Your task to perform on an android device: turn on location history Image 0: 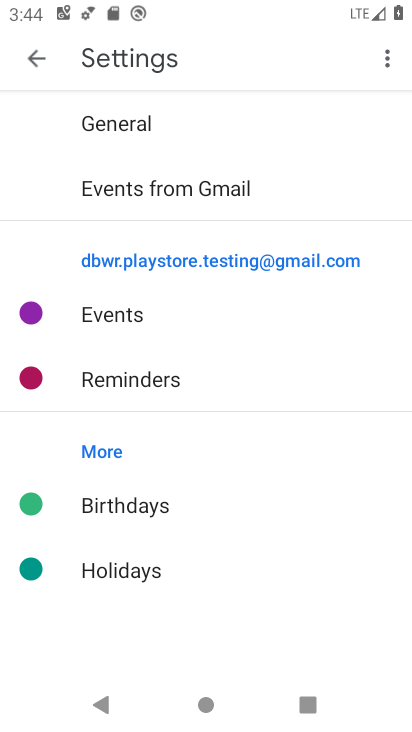
Step 0: press home button
Your task to perform on an android device: turn on location history Image 1: 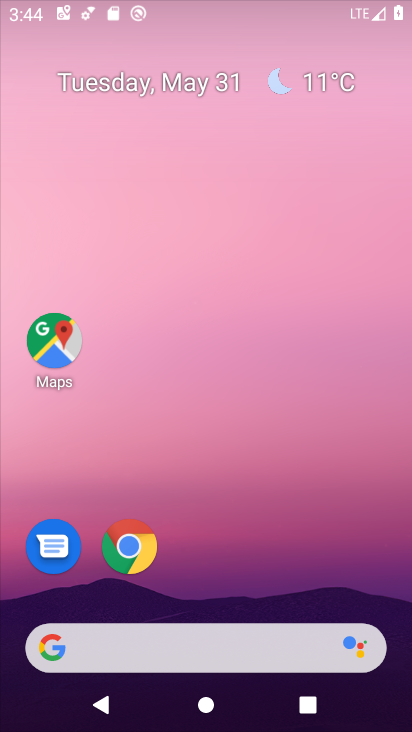
Step 1: drag from (250, 313) to (43, 35)
Your task to perform on an android device: turn on location history Image 2: 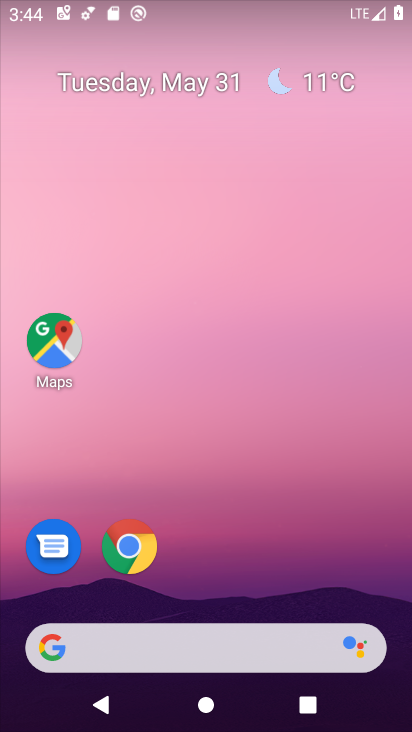
Step 2: drag from (244, 430) to (184, 4)
Your task to perform on an android device: turn on location history Image 3: 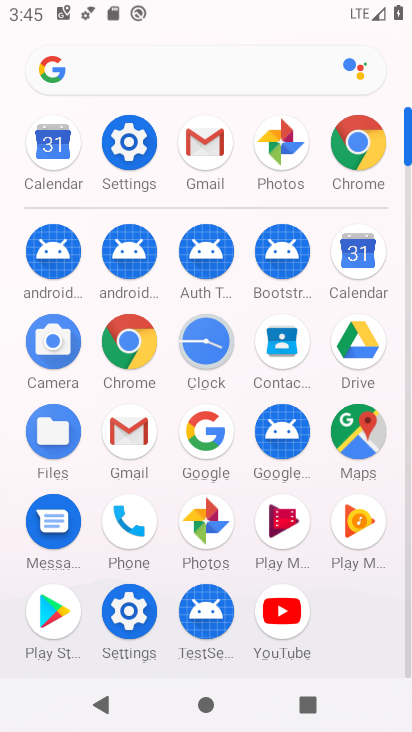
Step 3: click (128, 147)
Your task to perform on an android device: turn on location history Image 4: 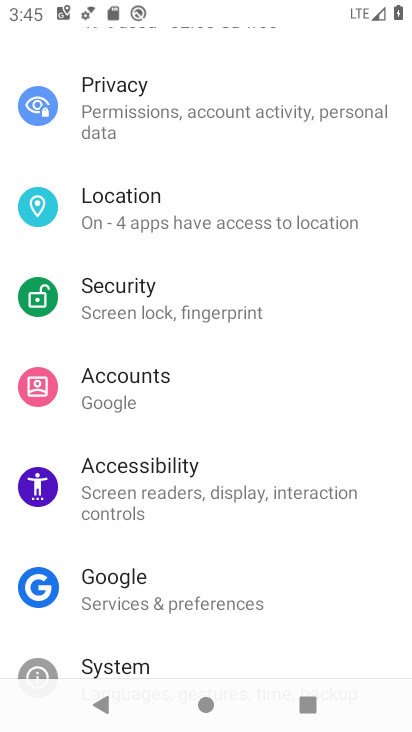
Step 4: drag from (266, 484) to (230, 570)
Your task to perform on an android device: turn on location history Image 5: 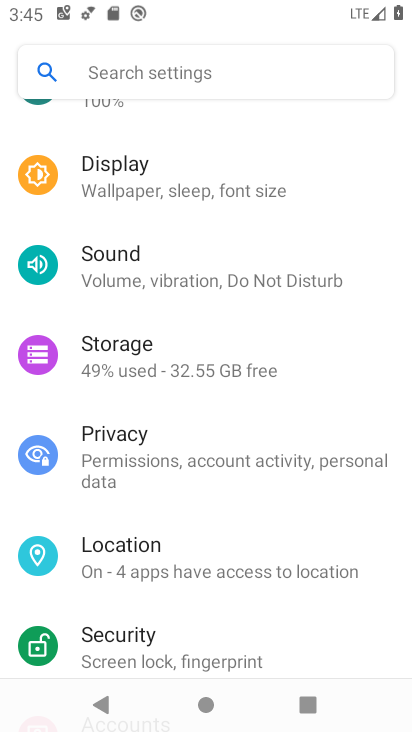
Step 5: click (126, 540)
Your task to perform on an android device: turn on location history Image 6: 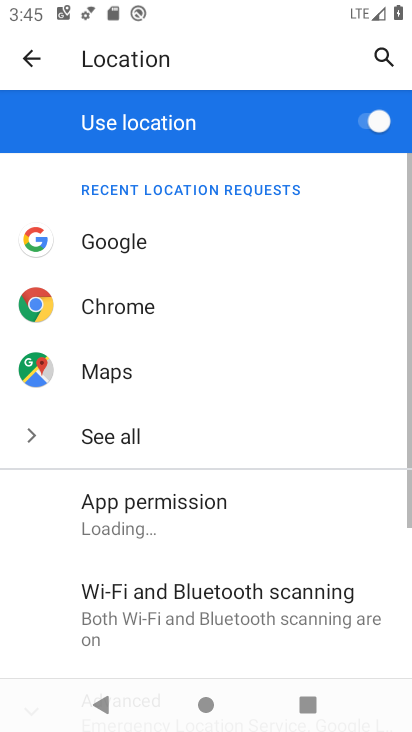
Step 6: drag from (236, 549) to (208, 0)
Your task to perform on an android device: turn on location history Image 7: 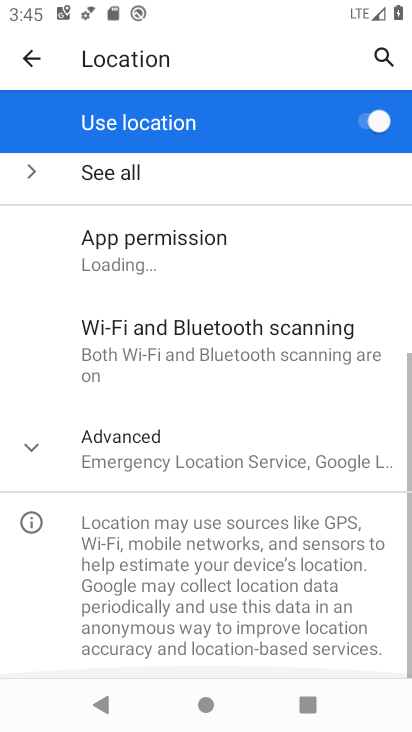
Step 7: click (205, 446)
Your task to perform on an android device: turn on location history Image 8: 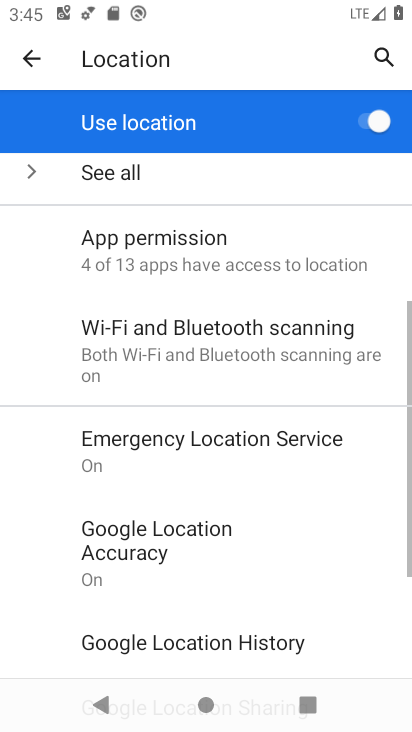
Step 8: click (254, 636)
Your task to perform on an android device: turn on location history Image 9: 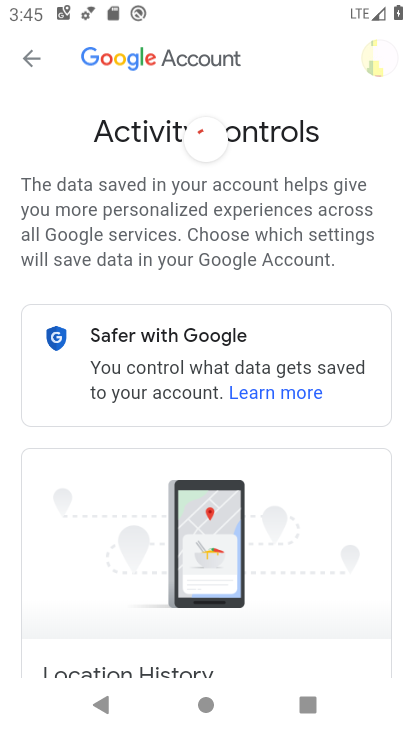
Step 9: task complete